Your task to perform on an android device: Clear all items from cart on walmart. Search for usb-c on walmart, select the first entry, add it to the cart, then select checkout. Image 0: 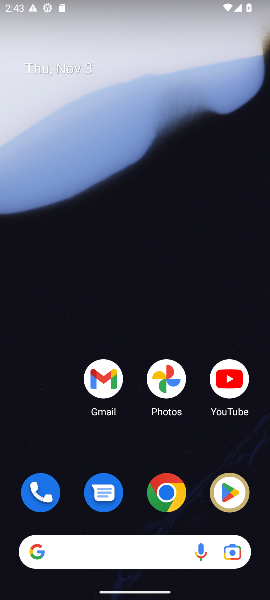
Step 0: click (173, 492)
Your task to perform on an android device: Clear all items from cart on walmart. Search for usb-c on walmart, select the first entry, add it to the cart, then select checkout. Image 1: 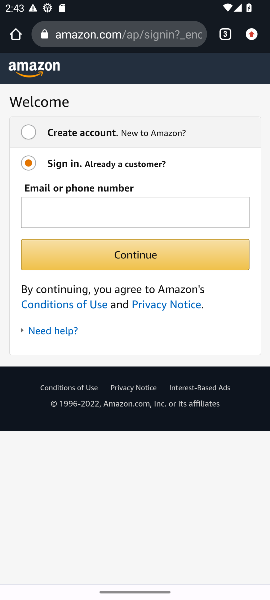
Step 1: click (119, 43)
Your task to perform on an android device: Clear all items from cart on walmart. Search for usb-c on walmart, select the first entry, add it to the cart, then select checkout. Image 2: 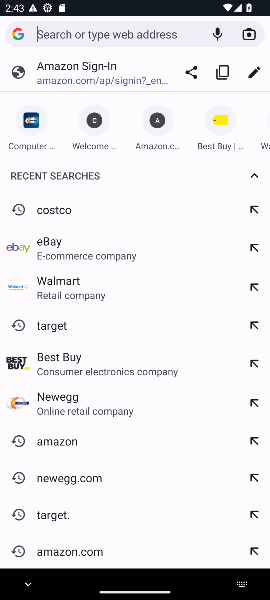
Step 2: type "walmart"
Your task to perform on an android device: Clear all items from cart on walmart. Search for usb-c on walmart, select the first entry, add it to the cart, then select checkout. Image 3: 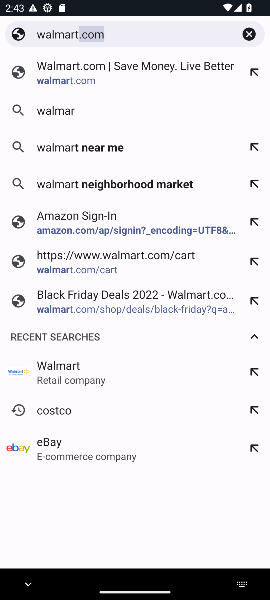
Step 3: type ""
Your task to perform on an android device: Clear all items from cart on walmart. Search for usb-c on walmart, select the first entry, add it to the cart, then select checkout. Image 4: 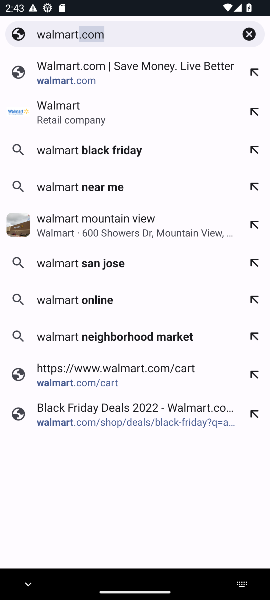
Step 4: click (98, 67)
Your task to perform on an android device: Clear all items from cart on walmart. Search for usb-c on walmart, select the first entry, add it to the cart, then select checkout. Image 5: 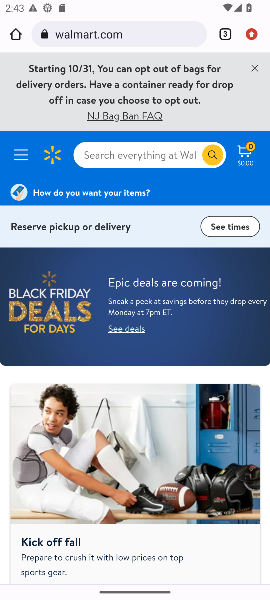
Step 5: click (256, 69)
Your task to perform on an android device: Clear all items from cart on walmart. Search for usb-c on walmart, select the first entry, add it to the cart, then select checkout. Image 6: 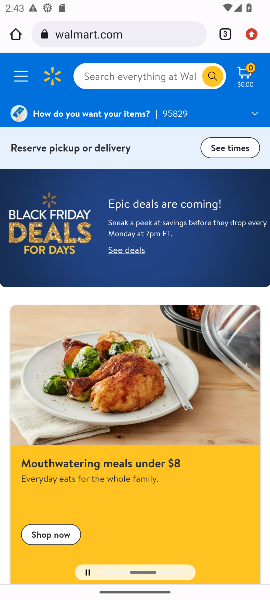
Step 6: click (132, 81)
Your task to perform on an android device: Clear all items from cart on walmart. Search for usb-c on walmart, select the first entry, add it to the cart, then select checkout. Image 7: 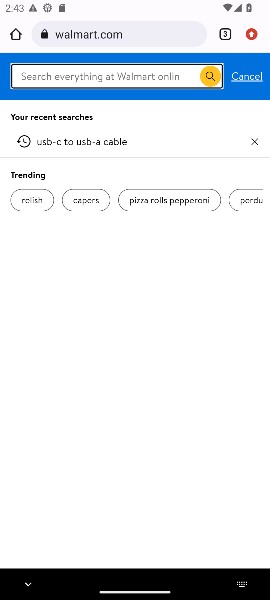
Step 7: type "usb-c"
Your task to perform on an android device: Clear all items from cart on walmart. Search for usb-c on walmart, select the first entry, add it to the cart, then select checkout. Image 8: 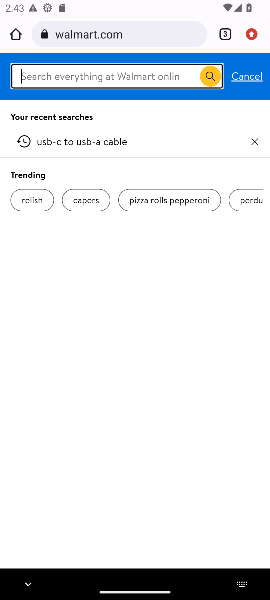
Step 8: type ""
Your task to perform on an android device: Clear all items from cart on walmart. Search for usb-c on walmart, select the first entry, add it to the cart, then select checkout. Image 9: 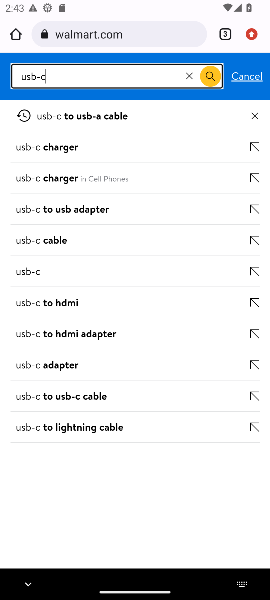
Step 9: click (211, 82)
Your task to perform on an android device: Clear all items from cart on walmart. Search for usb-c on walmart, select the first entry, add it to the cart, then select checkout. Image 10: 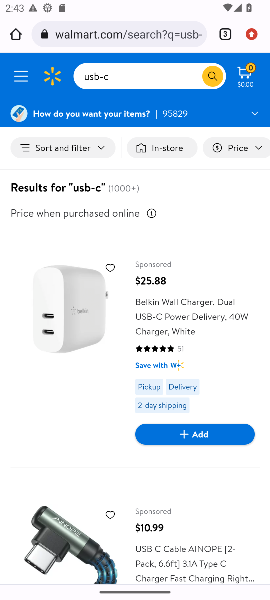
Step 10: click (200, 430)
Your task to perform on an android device: Clear all items from cart on walmart. Search for usb-c on walmart, select the first entry, add it to the cart, then select checkout. Image 11: 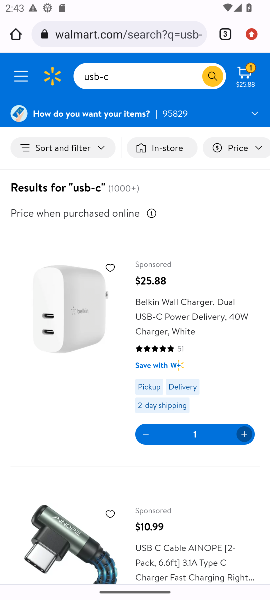
Step 11: click (238, 75)
Your task to perform on an android device: Clear all items from cart on walmart. Search for usb-c on walmart, select the first entry, add it to the cart, then select checkout. Image 12: 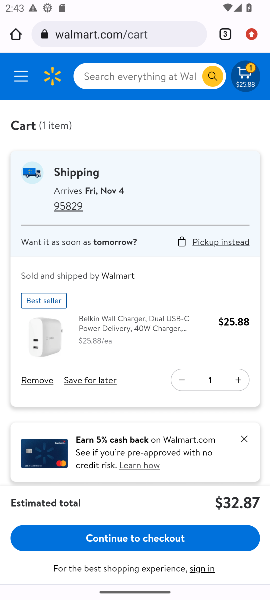
Step 12: click (152, 539)
Your task to perform on an android device: Clear all items from cart on walmart. Search for usb-c on walmart, select the first entry, add it to the cart, then select checkout. Image 13: 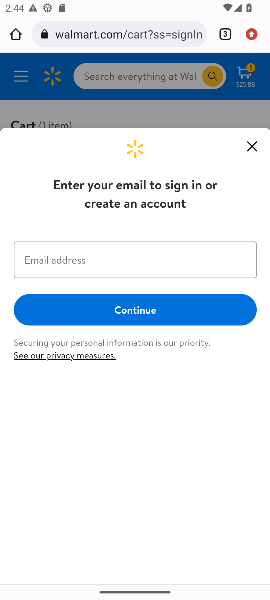
Step 13: task complete